Your task to perform on an android device: turn off picture-in-picture Image 0: 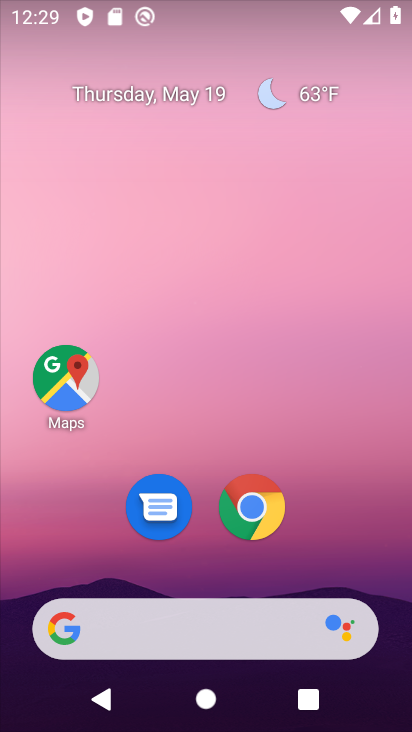
Step 0: click (253, 499)
Your task to perform on an android device: turn off picture-in-picture Image 1: 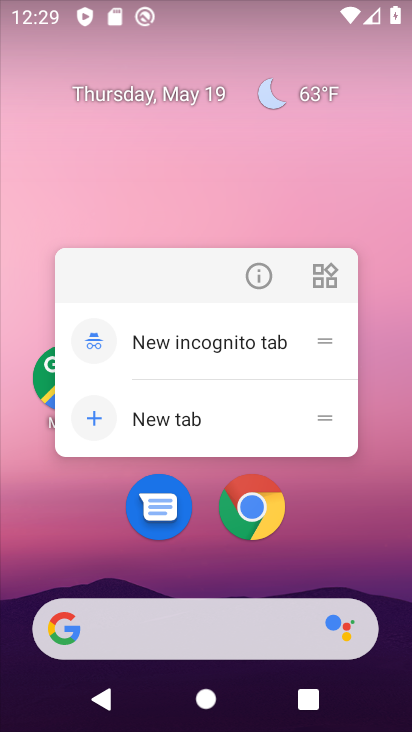
Step 1: click (263, 270)
Your task to perform on an android device: turn off picture-in-picture Image 2: 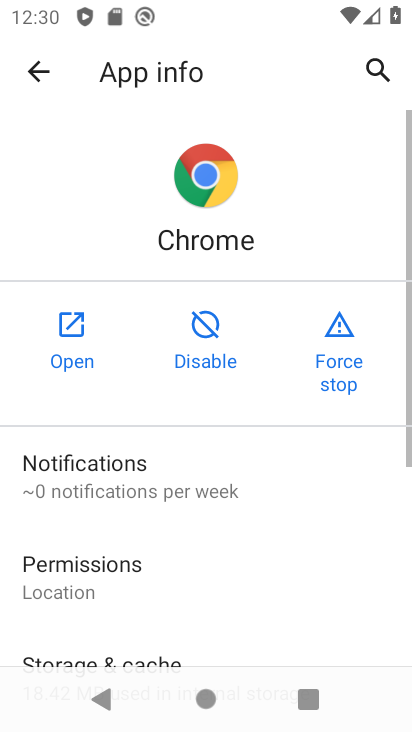
Step 2: drag from (148, 627) to (187, 197)
Your task to perform on an android device: turn off picture-in-picture Image 3: 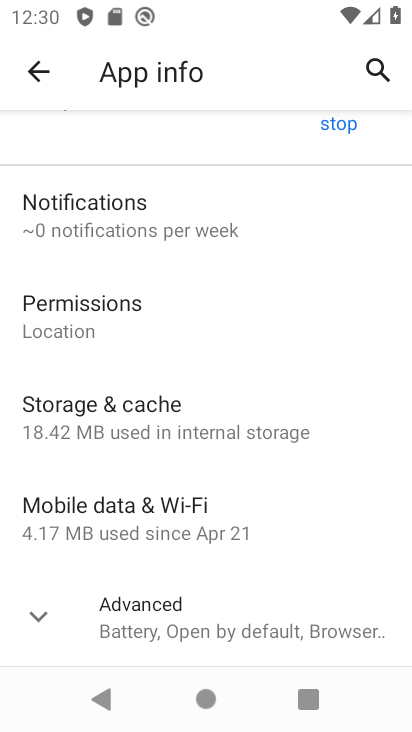
Step 3: click (132, 596)
Your task to perform on an android device: turn off picture-in-picture Image 4: 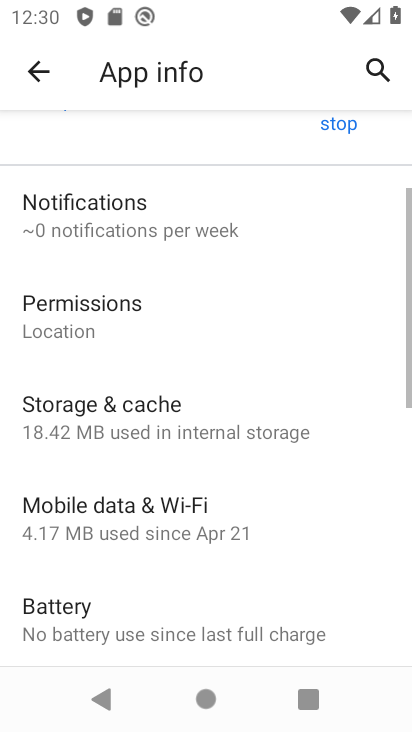
Step 4: drag from (129, 626) to (115, 279)
Your task to perform on an android device: turn off picture-in-picture Image 5: 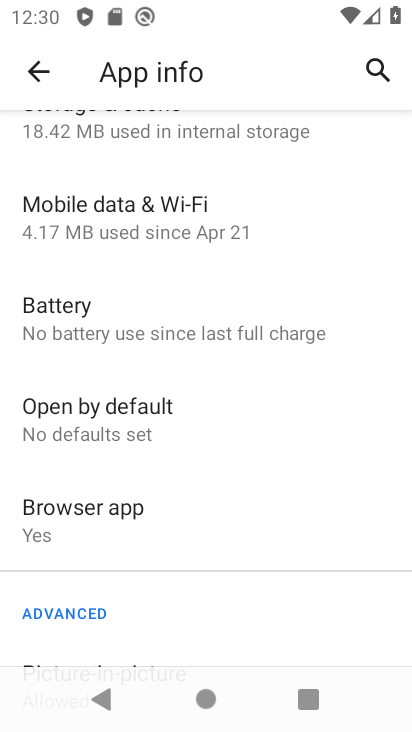
Step 5: drag from (108, 614) to (126, 258)
Your task to perform on an android device: turn off picture-in-picture Image 6: 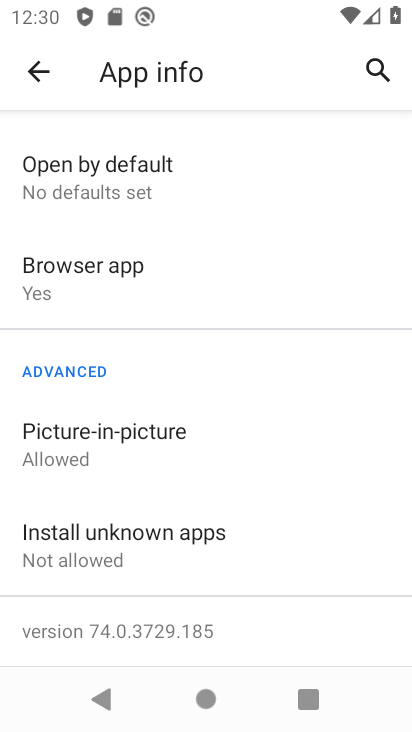
Step 6: click (114, 450)
Your task to perform on an android device: turn off picture-in-picture Image 7: 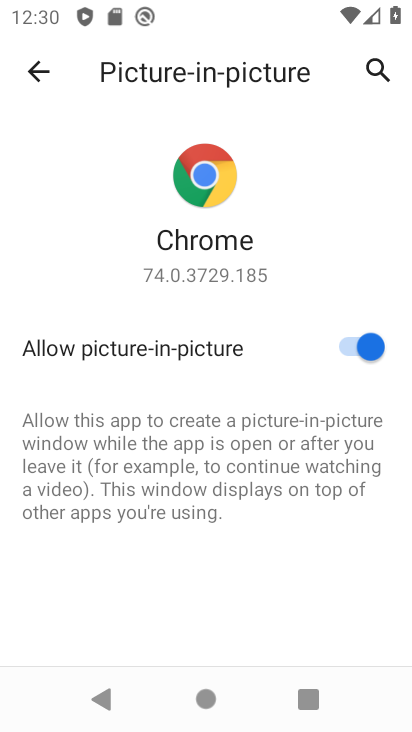
Step 7: click (344, 344)
Your task to perform on an android device: turn off picture-in-picture Image 8: 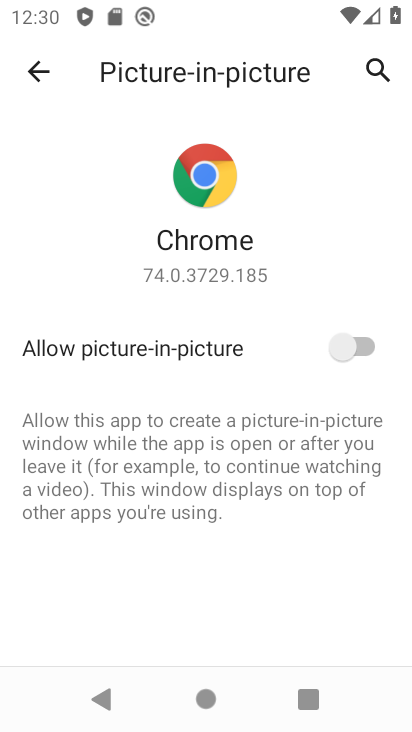
Step 8: task complete